Your task to perform on an android device: open app "Upside-Cash back on gas & food" (install if not already installed) and go to login screen Image 0: 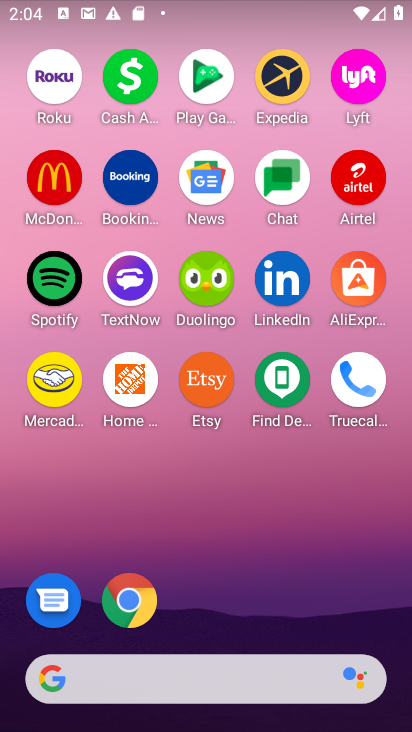
Step 0: drag from (289, 626) to (265, 124)
Your task to perform on an android device: open app "Upside-Cash back on gas & food" (install if not already installed) and go to login screen Image 1: 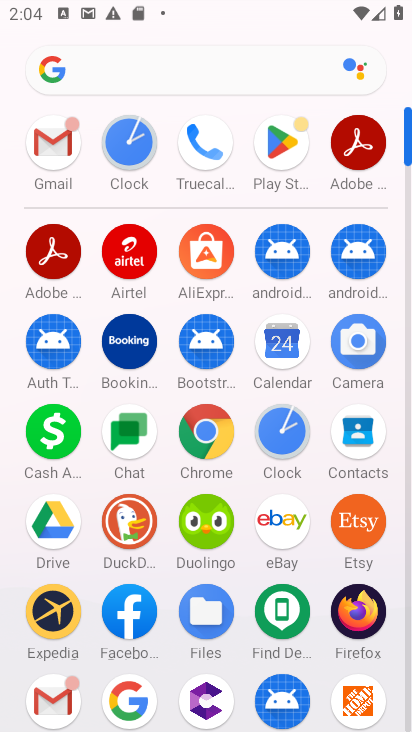
Step 1: click (268, 155)
Your task to perform on an android device: open app "Upside-Cash back on gas & food" (install if not already installed) and go to login screen Image 2: 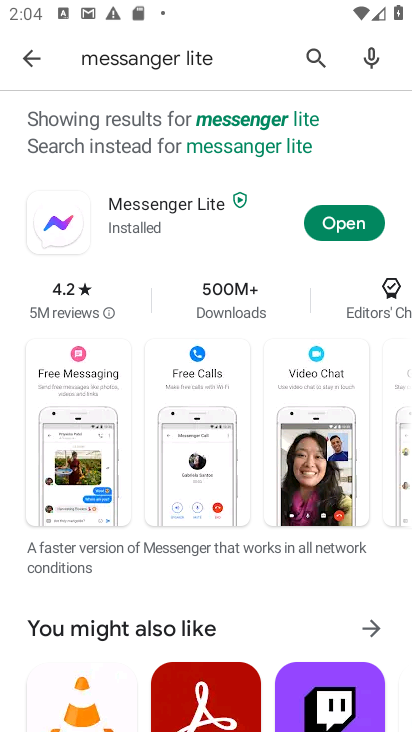
Step 2: click (324, 69)
Your task to perform on an android device: open app "Upside-Cash back on gas & food" (install if not already installed) and go to login screen Image 3: 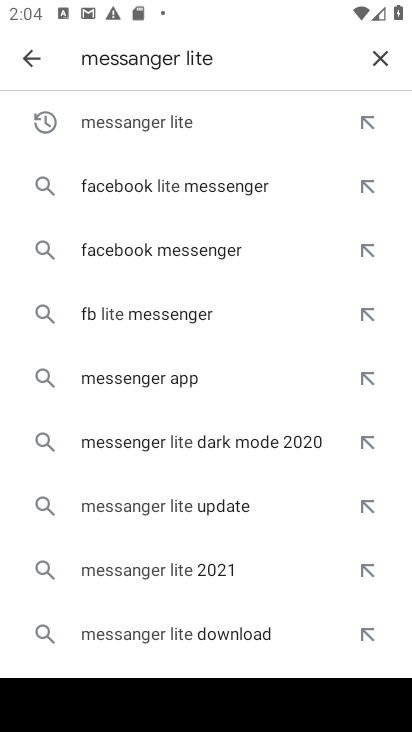
Step 3: click (373, 72)
Your task to perform on an android device: open app "Upside-Cash back on gas & food" (install if not already installed) and go to login screen Image 4: 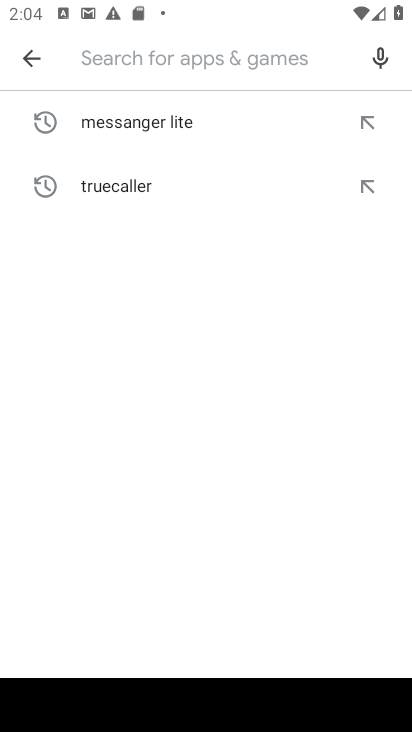
Step 4: type "upside"
Your task to perform on an android device: open app "Upside-Cash back on gas & food" (install if not already installed) and go to login screen Image 5: 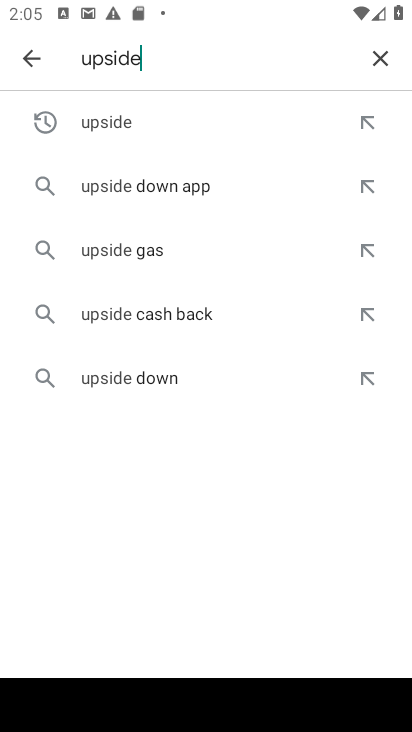
Step 5: click (256, 123)
Your task to perform on an android device: open app "Upside-Cash back on gas & food" (install if not already installed) and go to login screen Image 6: 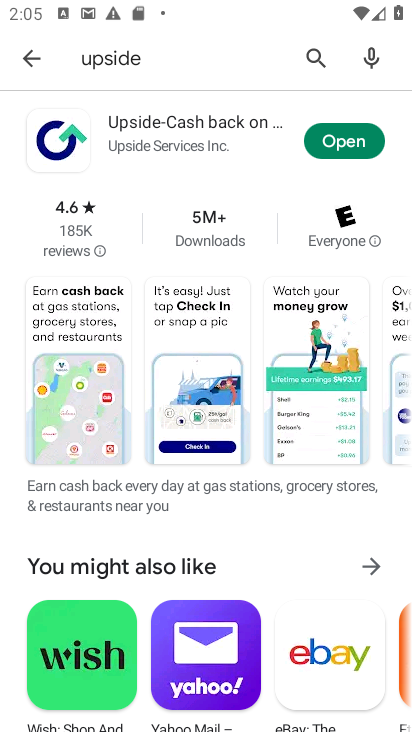
Step 6: click (339, 136)
Your task to perform on an android device: open app "Upside-Cash back on gas & food" (install if not already installed) and go to login screen Image 7: 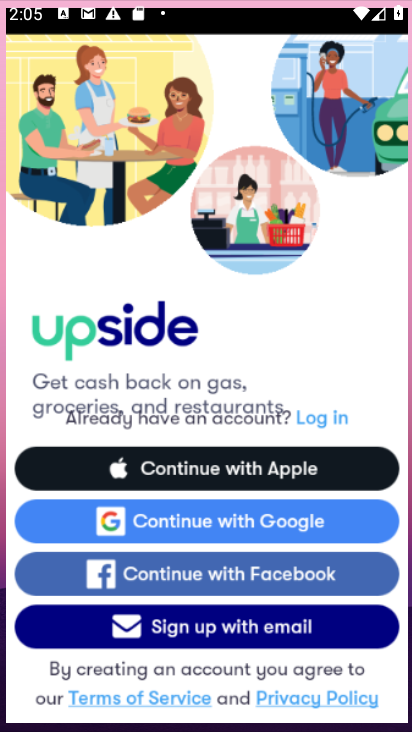
Step 7: task complete